Your task to perform on an android device: turn off improve location accuracy Image 0: 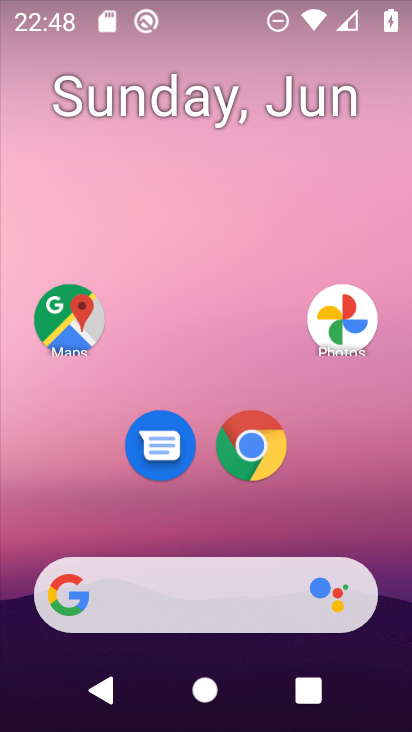
Step 0: drag from (243, 457) to (200, 0)
Your task to perform on an android device: turn off improve location accuracy Image 1: 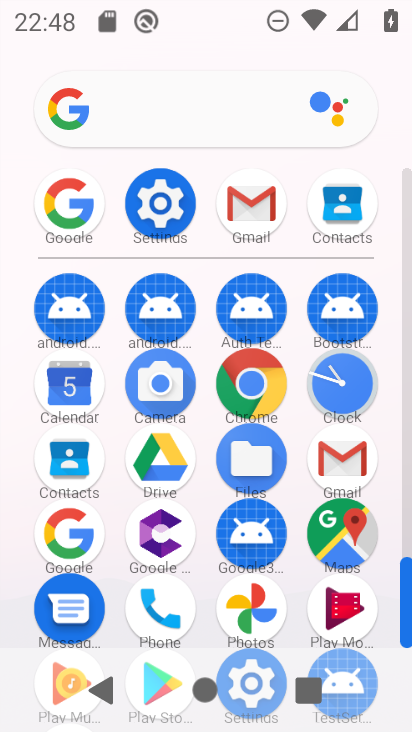
Step 1: click (165, 205)
Your task to perform on an android device: turn off improve location accuracy Image 2: 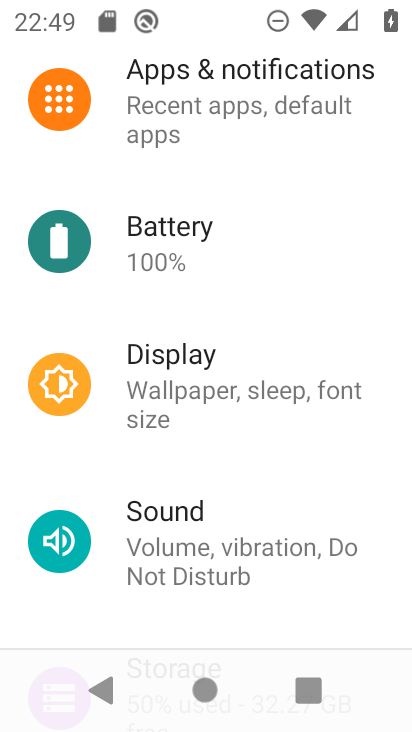
Step 2: drag from (303, 484) to (219, 43)
Your task to perform on an android device: turn off improve location accuracy Image 3: 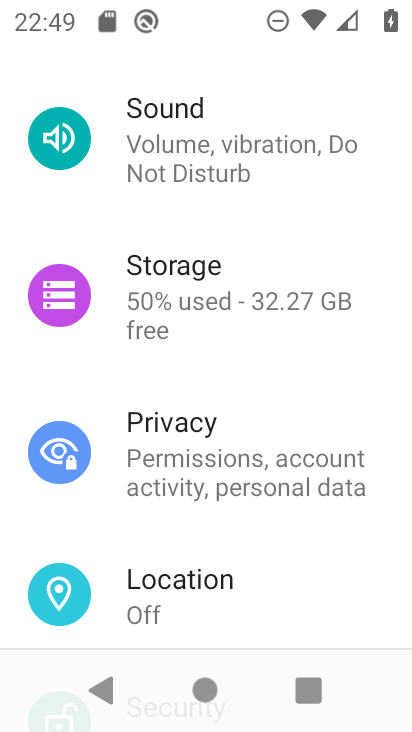
Step 3: click (191, 589)
Your task to perform on an android device: turn off improve location accuracy Image 4: 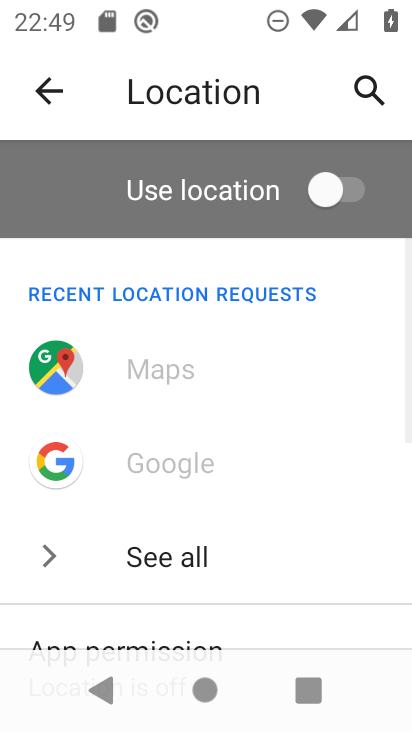
Step 4: drag from (268, 540) to (258, 17)
Your task to perform on an android device: turn off improve location accuracy Image 5: 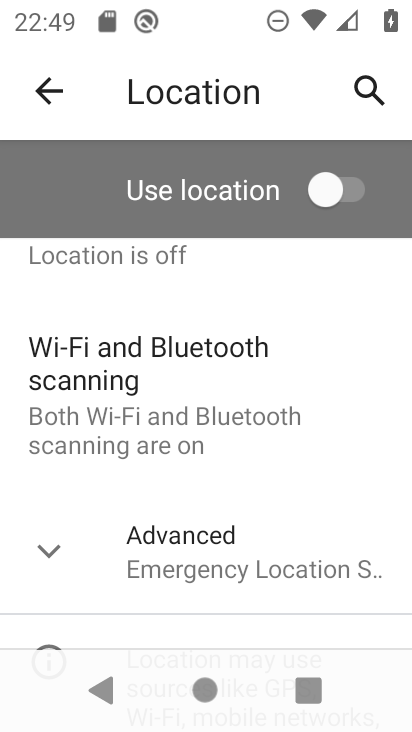
Step 5: click (165, 555)
Your task to perform on an android device: turn off improve location accuracy Image 6: 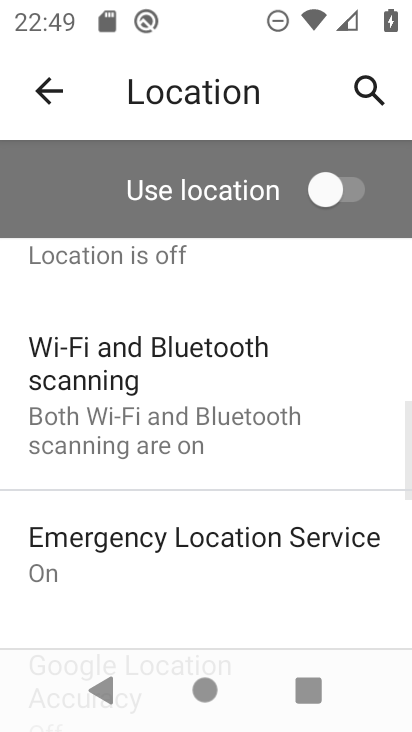
Step 6: drag from (280, 584) to (297, 185)
Your task to perform on an android device: turn off improve location accuracy Image 7: 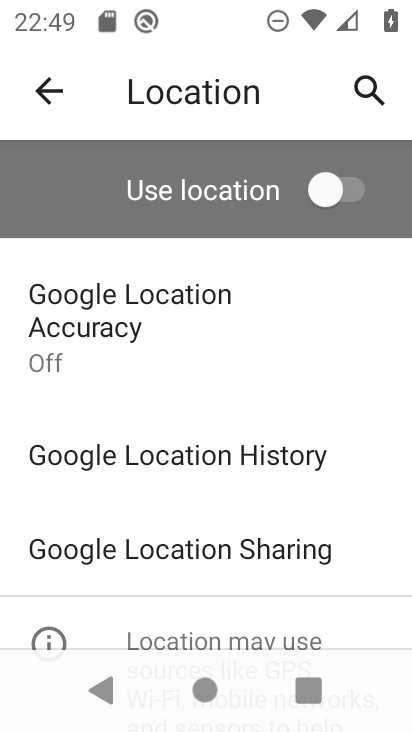
Step 7: drag from (252, 356) to (252, 564)
Your task to perform on an android device: turn off improve location accuracy Image 8: 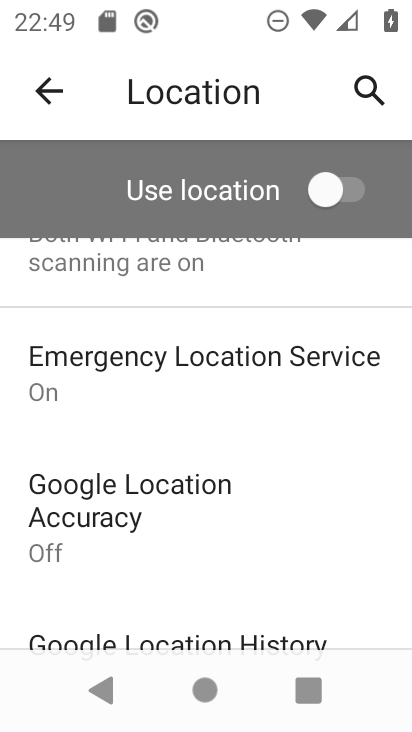
Step 8: click (125, 495)
Your task to perform on an android device: turn off improve location accuracy Image 9: 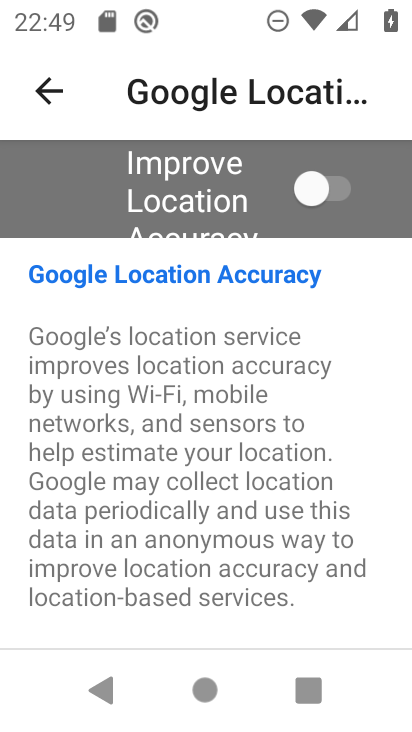
Step 9: task complete